Your task to perform on an android device: turn off sleep mode Image 0: 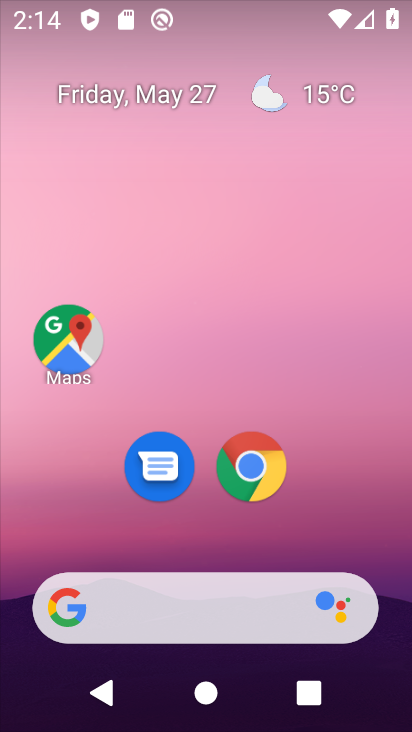
Step 0: drag from (326, 243) to (310, 123)
Your task to perform on an android device: turn off sleep mode Image 1: 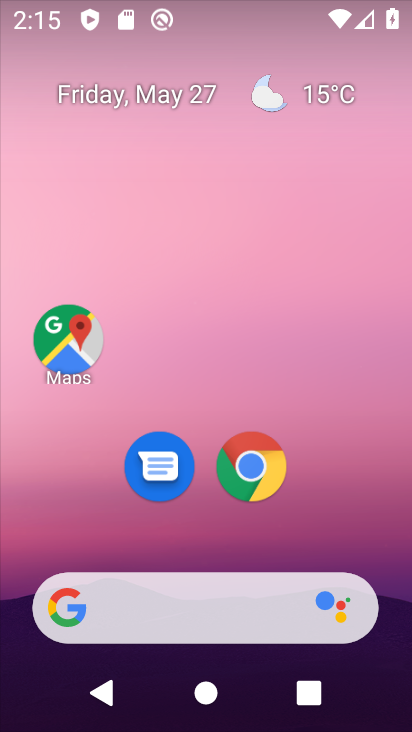
Step 1: drag from (401, 552) to (326, 160)
Your task to perform on an android device: turn off sleep mode Image 2: 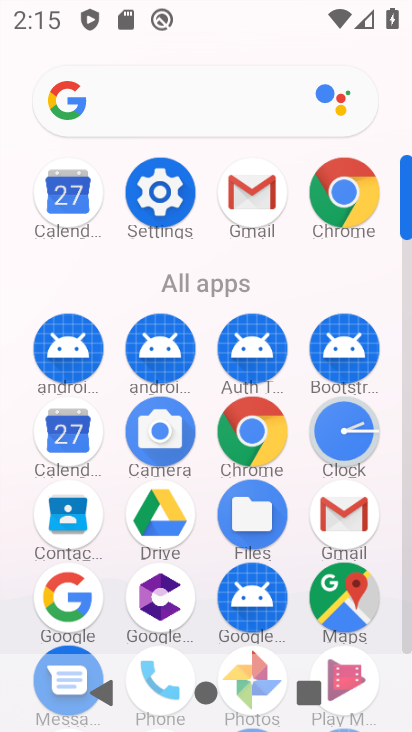
Step 2: click (156, 177)
Your task to perform on an android device: turn off sleep mode Image 3: 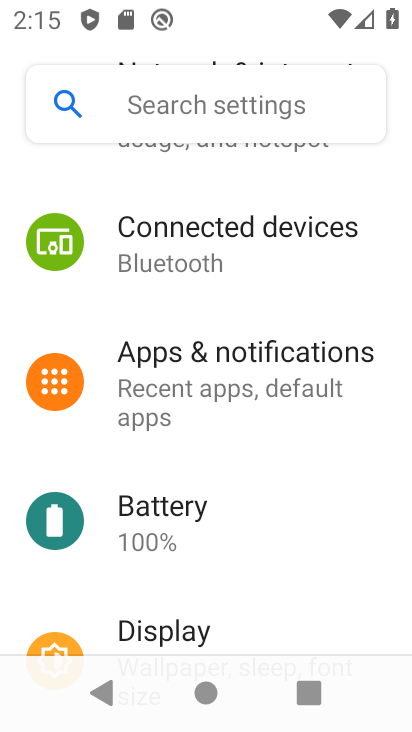
Step 3: click (205, 120)
Your task to perform on an android device: turn off sleep mode Image 4: 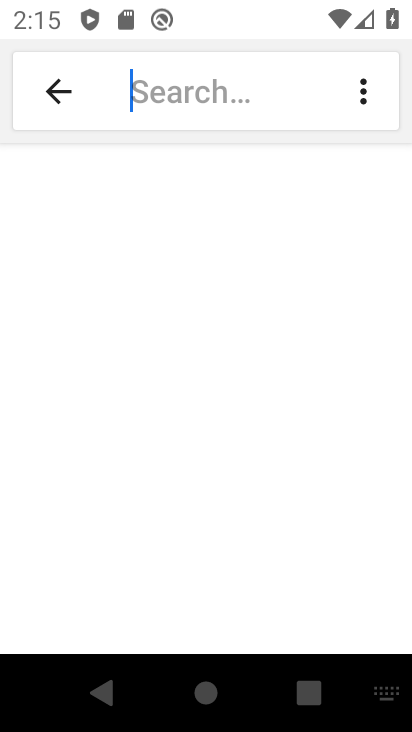
Step 4: type "sleep mode"
Your task to perform on an android device: turn off sleep mode Image 5: 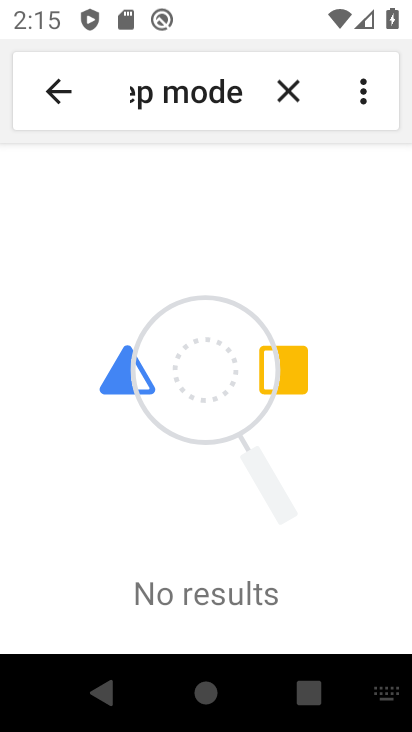
Step 5: task complete